Your task to perform on an android device: What's on my calendar tomorrow? Image 0: 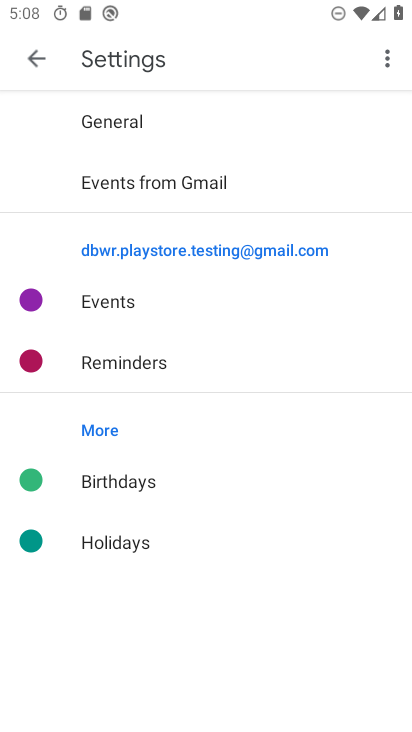
Step 0: drag from (142, 685) to (284, 239)
Your task to perform on an android device: What's on my calendar tomorrow? Image 1: 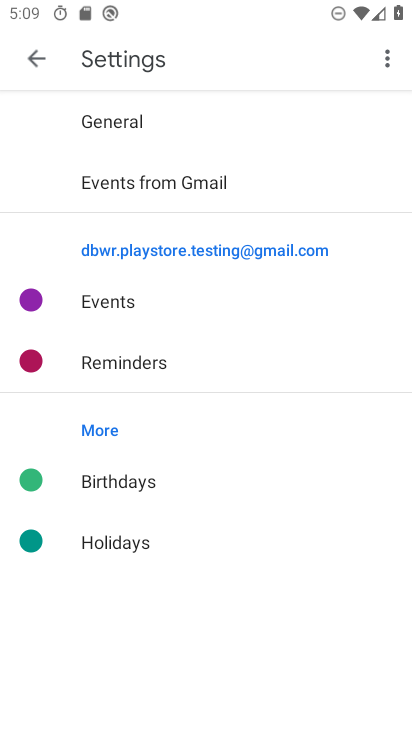
Step 1: press home button
Your task to perform on an android device: What's on my calendar tomorrow? Image 2: 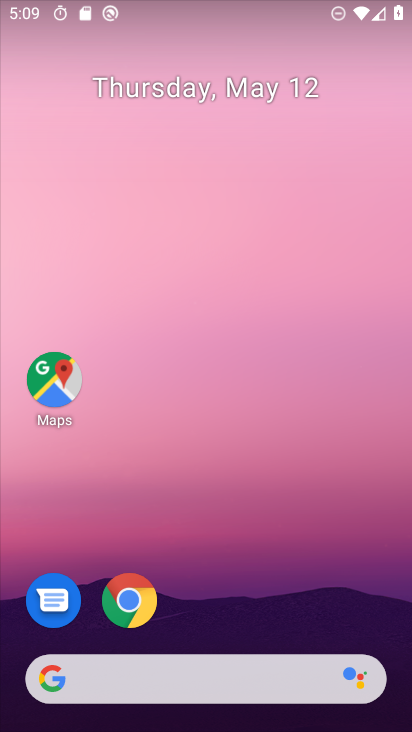
Step 2: drag from (182, 648) to (254, 79)
Your task to perform on an android device: What's on my calendar tomorrow? Image 3: 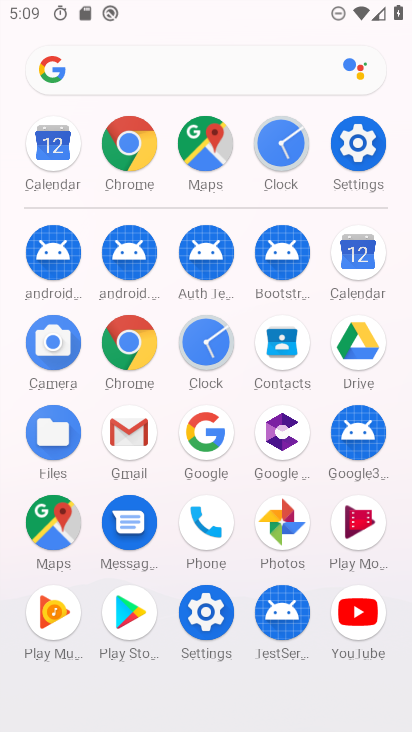
Step 3: click (362, 243)
Your task to perform on an android device: What's on my calendar tomorrow? Image 4: 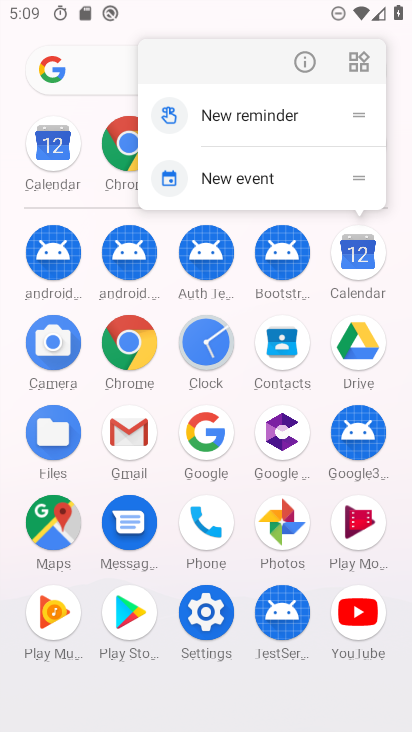
Step 4: click (307, 54)
Your task to perform on an android device: What's on my calendar tomorrow? Image 5: 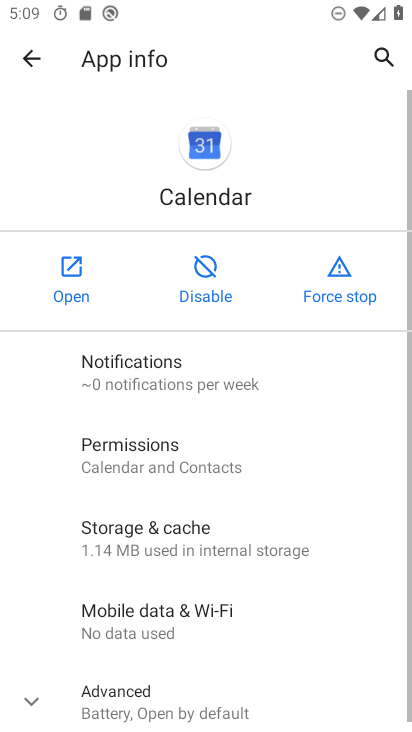
Step 5: click (61, 279)
Your task to perform on an android device: What's on my calendar tomorrow? Image 6: 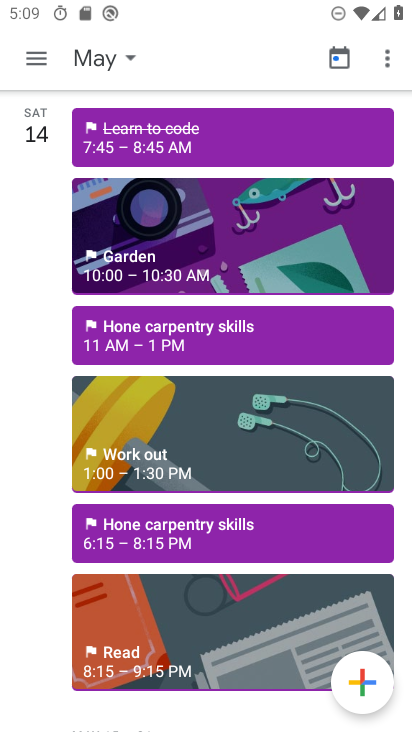
Step 6: click (118, 68)
Your task to perform on an android device: What's on my calendar tomorrow? Image 7: 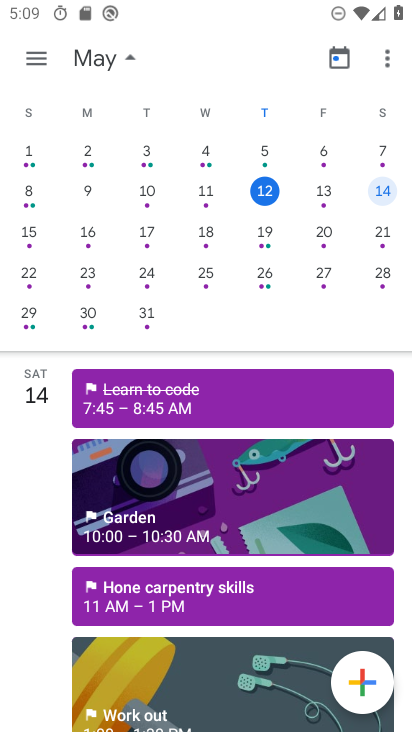
Step 7: click (338, 198)
Your task to perform on an android device: What's on my calendar tomorrow? Image 8: 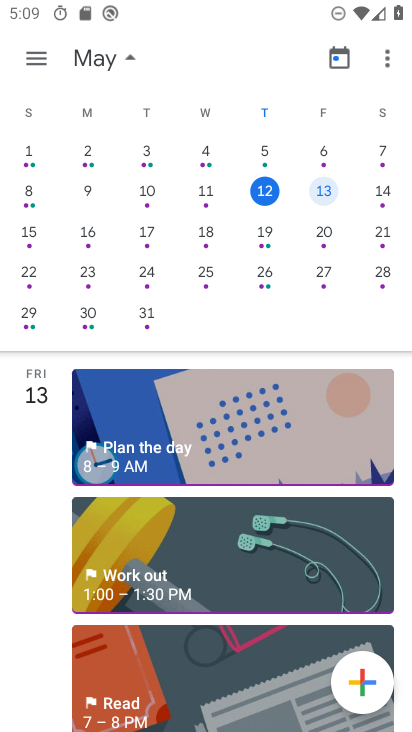
Step 8: task complete